Your task to perform on an android device: Is it going to rain today? Image 0: 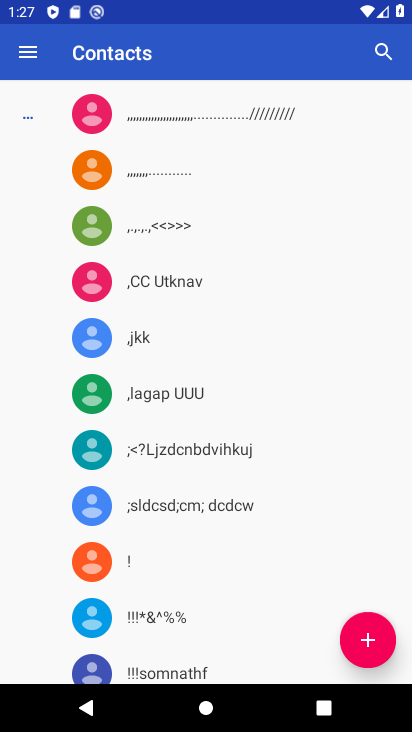
Step 0: press home button
Your task to perform on an android device: Is it going to rain today? Image 1: 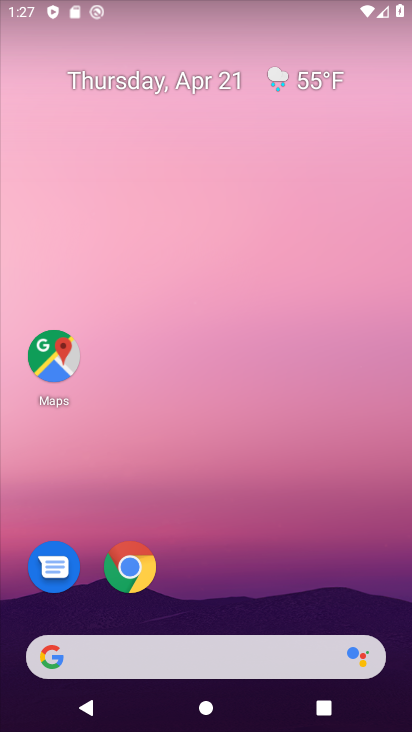
Step 1: click (294, 74)
Your task to perform on an android device: Is it going to rain today? Image 2: 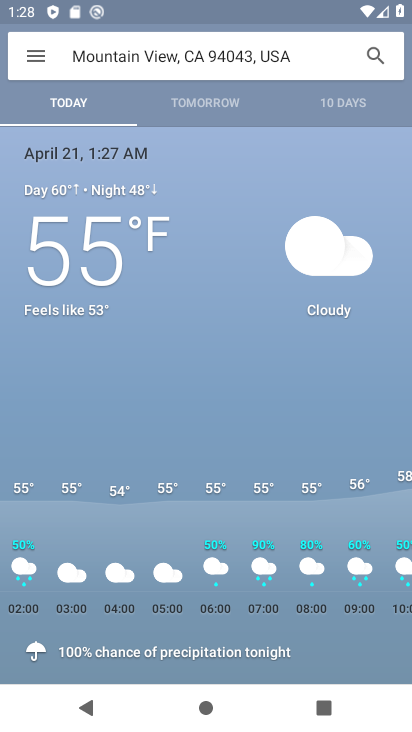
Step 2: task complete